Your task to perform on an android device: Open Google Chrome and open the bookmarks view Image 0: 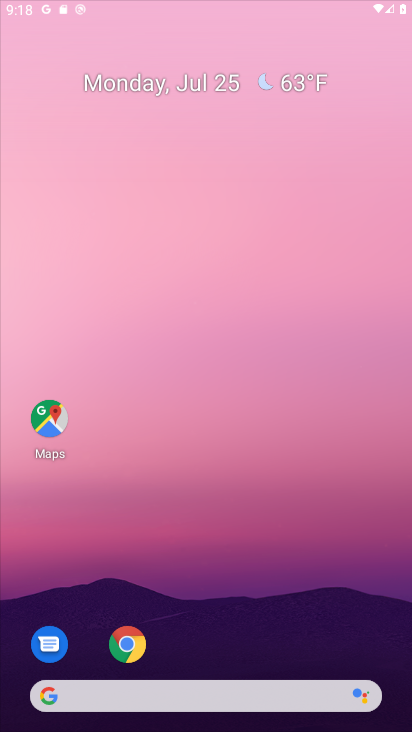
Step 0: drag from (293, 219) to (293, 126)
Your task to perform on an android device: Open Google Chrome and open the bookmarks view Image 1: 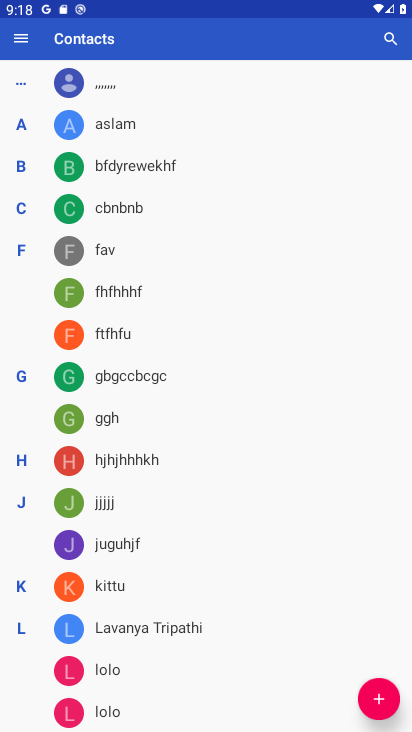
Step 1: press home button
Your task to perform on an android device: Open Google Chrome and open the bookmarks view Image 2: 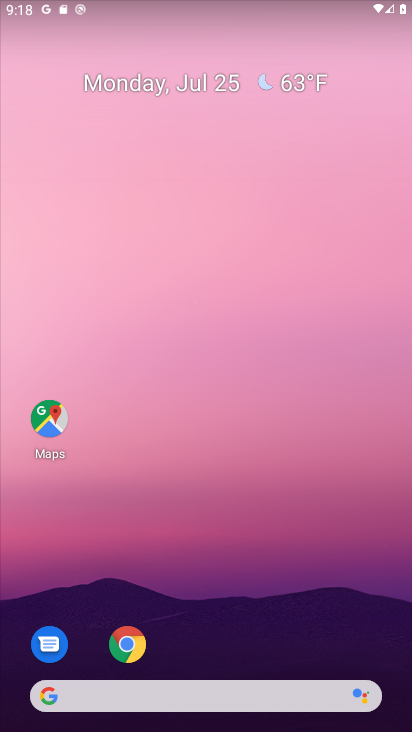
Step 2: drag from (172, 624) to (178, 97)
Your task to perform on an android device: Open Google Chrome and open the bookmarks view Image 3: 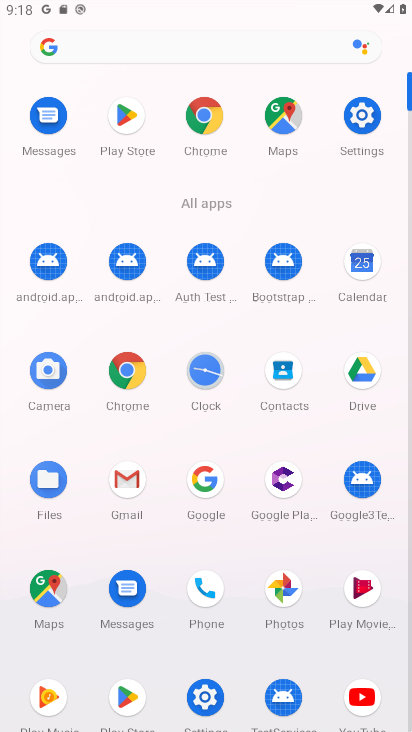
Step 3: click (193, 125)
Your task to perform on an android device: Open Google Chrome and open the bookmarks view Image 4: 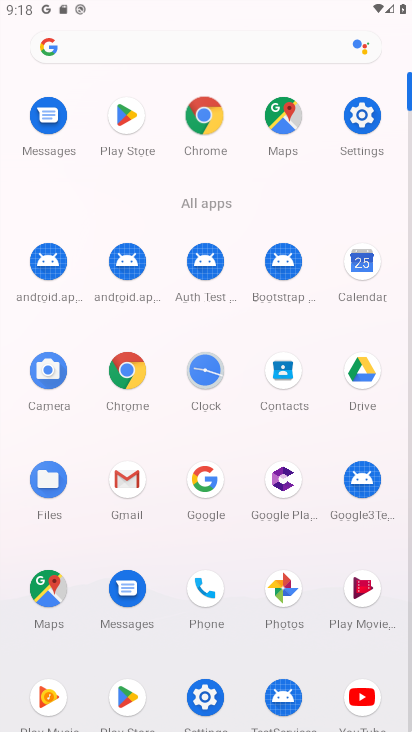
Step 4: click (196, 115)
Your task to perform on an android device: Open Google Chrome and open the bookmarks view Image 5: 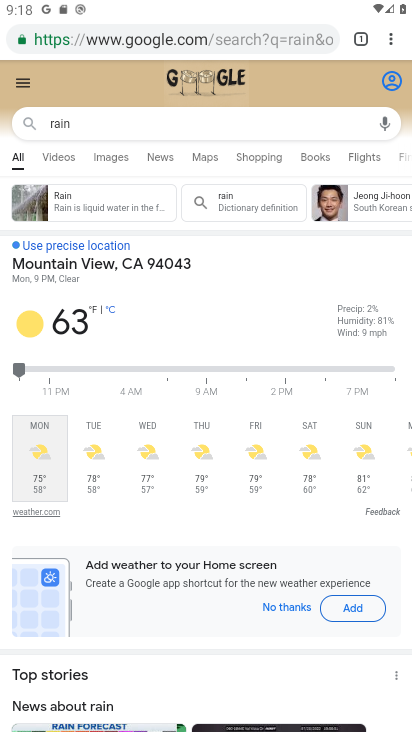
Step 5: task complete